Your task to perform on an android device: Show the shopping cart on costco.com. Add "razer blade" to the cart on costco.com Image 0: 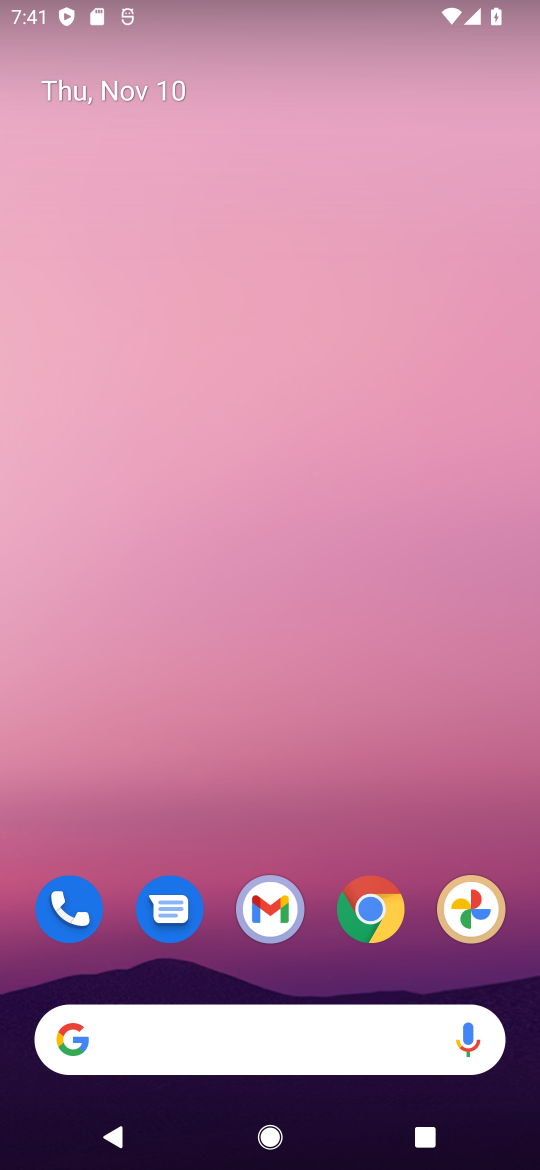
Step 0: drag from (126, 943) to (213, 350)
Your task to perform on an android device: Show the shopping cart on costco.com. Add "razer blade" to the cart on costco.com Image 1: 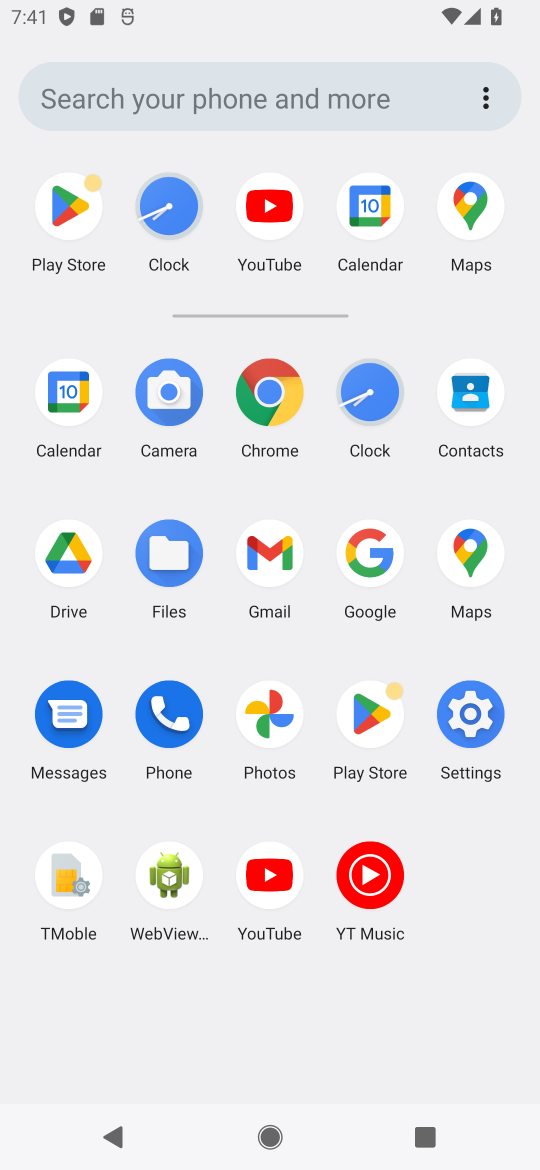
Step 1: click (368, 537)
Your task to perform on an android device: Show the shopping cart on costco.com. Add "razer blade" to the cart on costco.com Image 2: 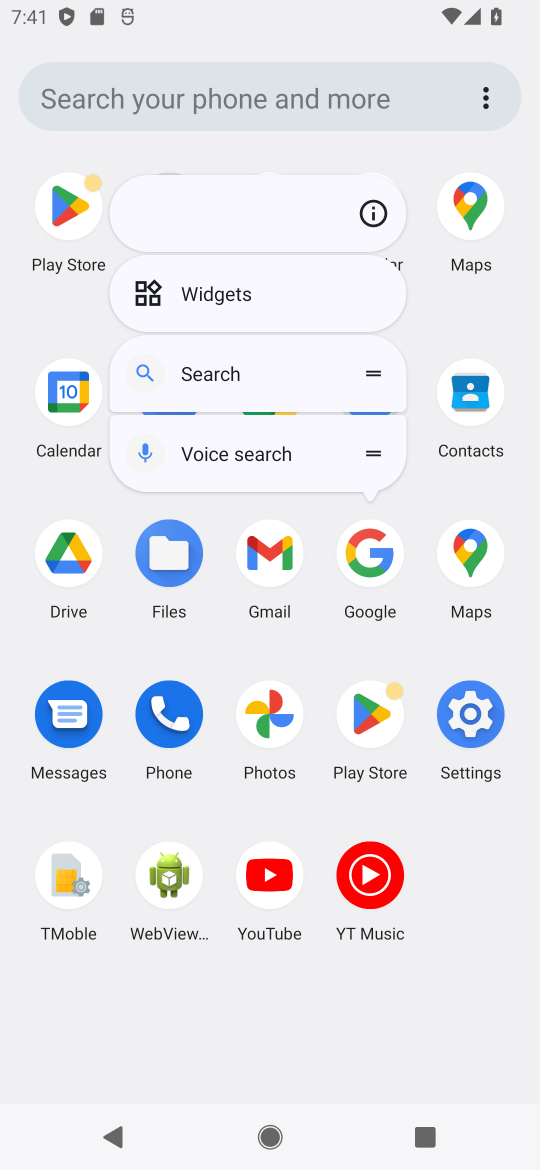
Step 2: click (368, 537)
Your task to perform on an android device: Show the shopping cart on costco.com. Add "razer blade" to the cart on costco.com Image 3: 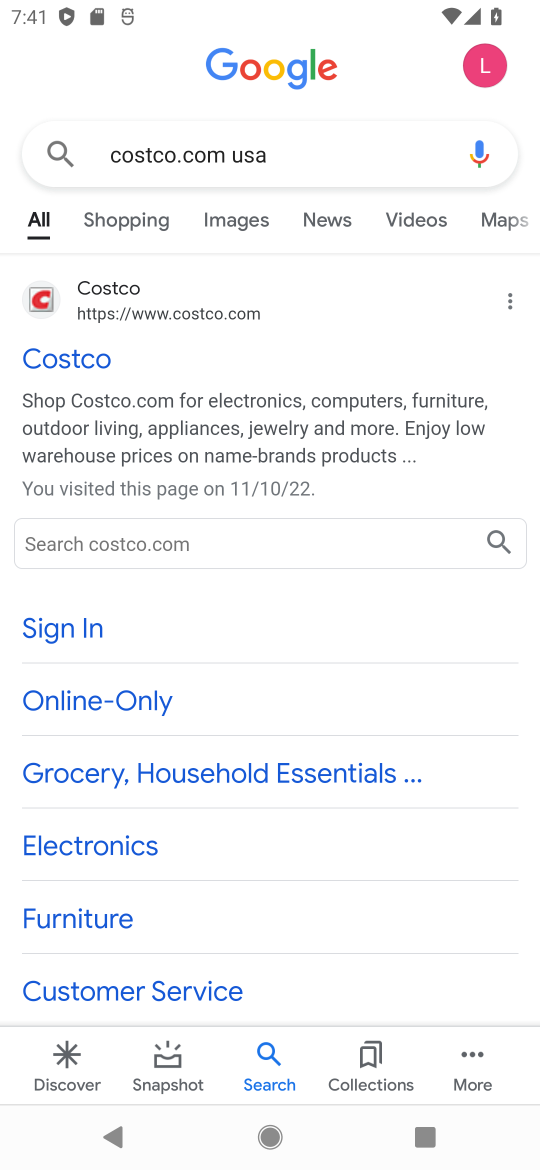
Step 3: click (291, 148)
Your task to perform on an android device: Show the shopping cart on costco.com. Add "razer blade" to the cart on costco.com Image 4: 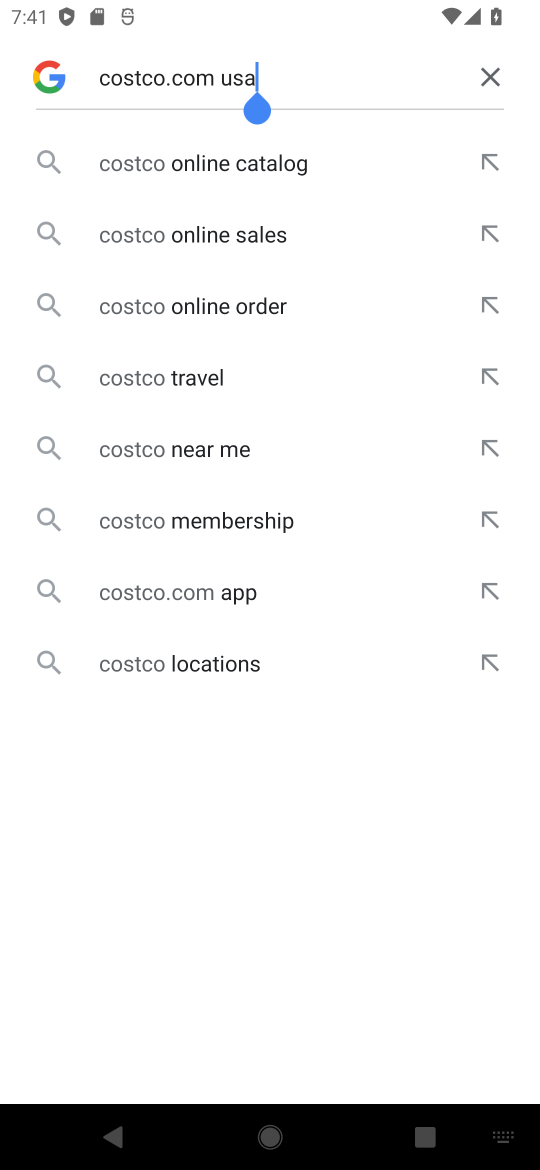
Step 4: click (488, 70)
Your task to perform on an android device: Show the shopping cart on costco.com. Add "razer blade" to the cart on costco.com Image 5: 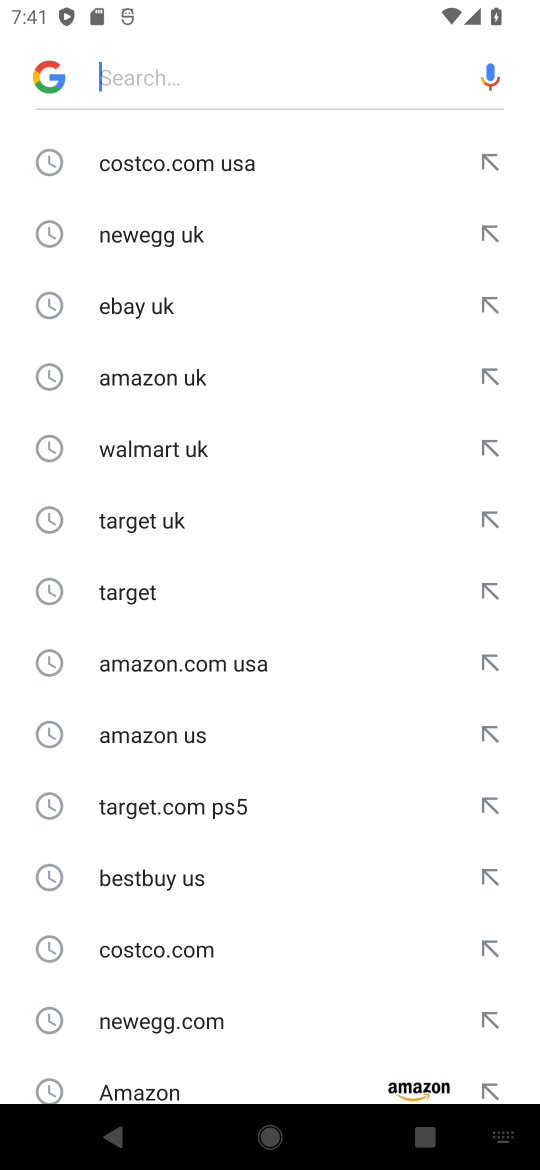
Step 5: click (169, 161)
Your task to perform on an android device: Show the shopping cart on costco.com. Add "razer blade" to the cart on costco.com Image 6: 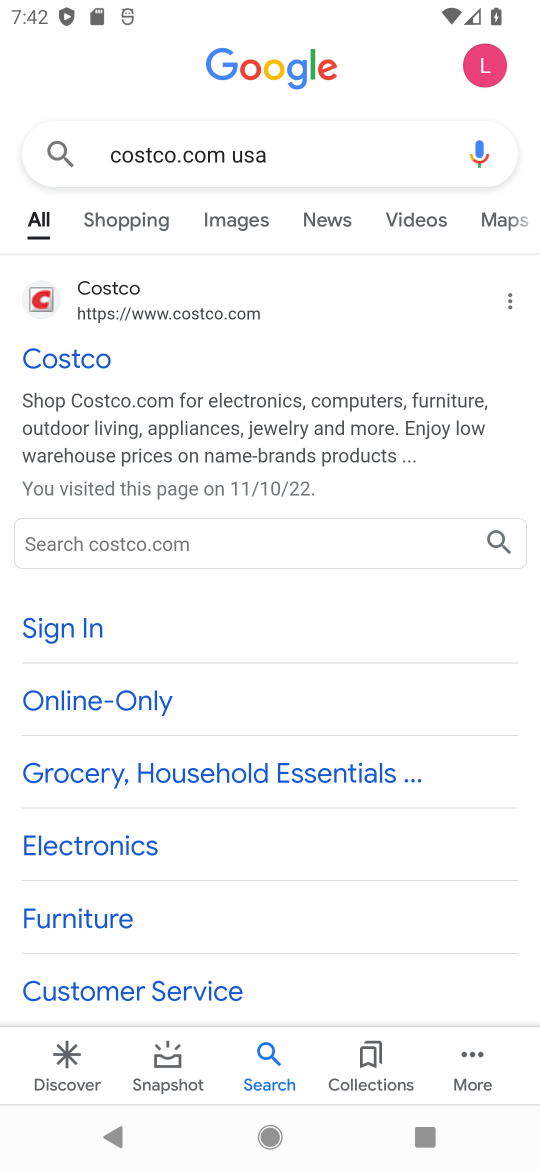
Step 6: click (54, 297)
Your task to perform on an android device: Show the shopping cart on costco.com. Add "razer blade" to the cart on costco.com Image 7: 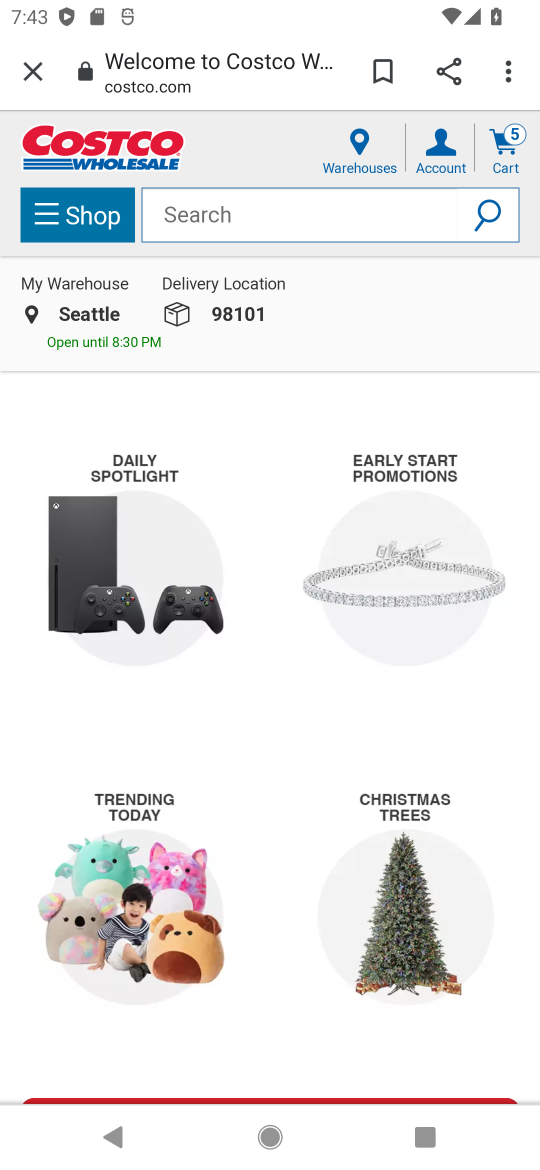
Step 7: click (255, 202)
Your task to perform on an android device: Show the shopping cart on costco.com. Add "razer blade" to the cart on costco.com Image 8: 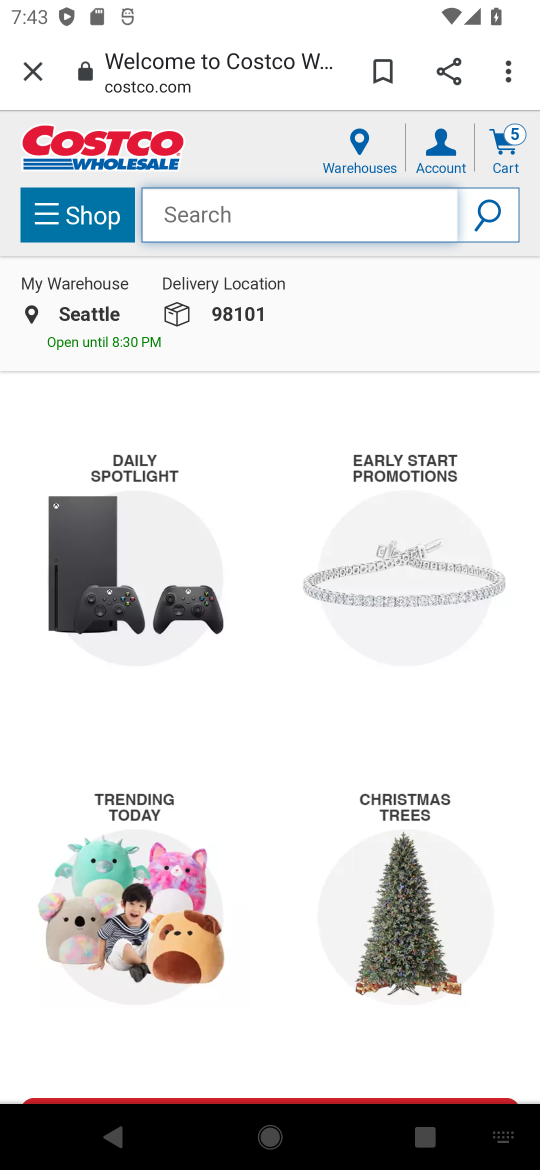
Step 8: type "razer blade "
Your task to perform on an android device: Show the shopping cart on costco.com. Add "razer blade" to the cart on costco.com Image 9: 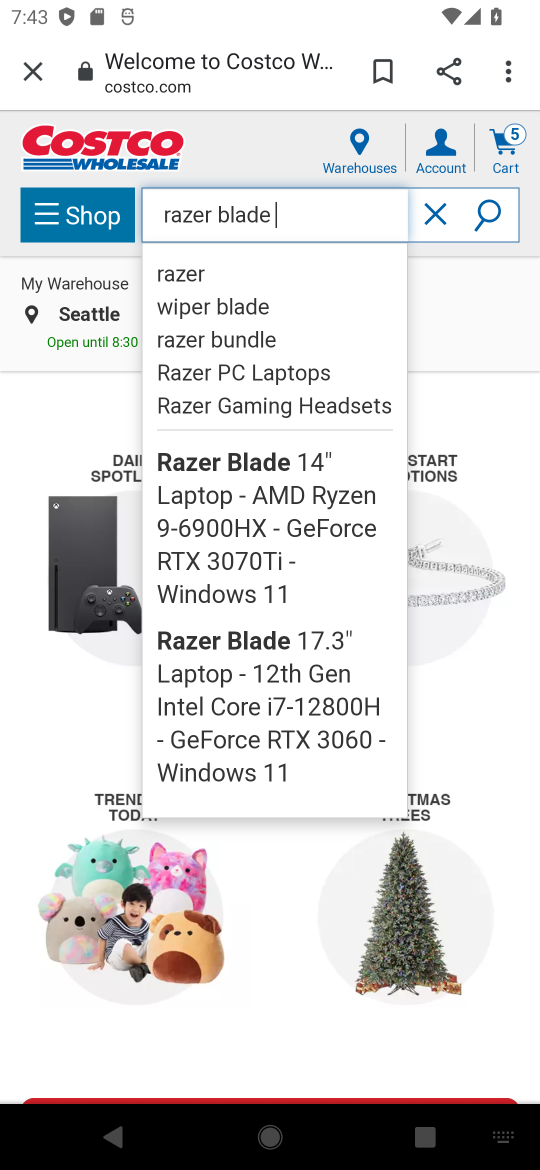
Step 9: click (171, 276)
Your task to perform on an android device: Show the shopping cart on costco.com. Add "razer blade" to the cart on costco.com Image 10: 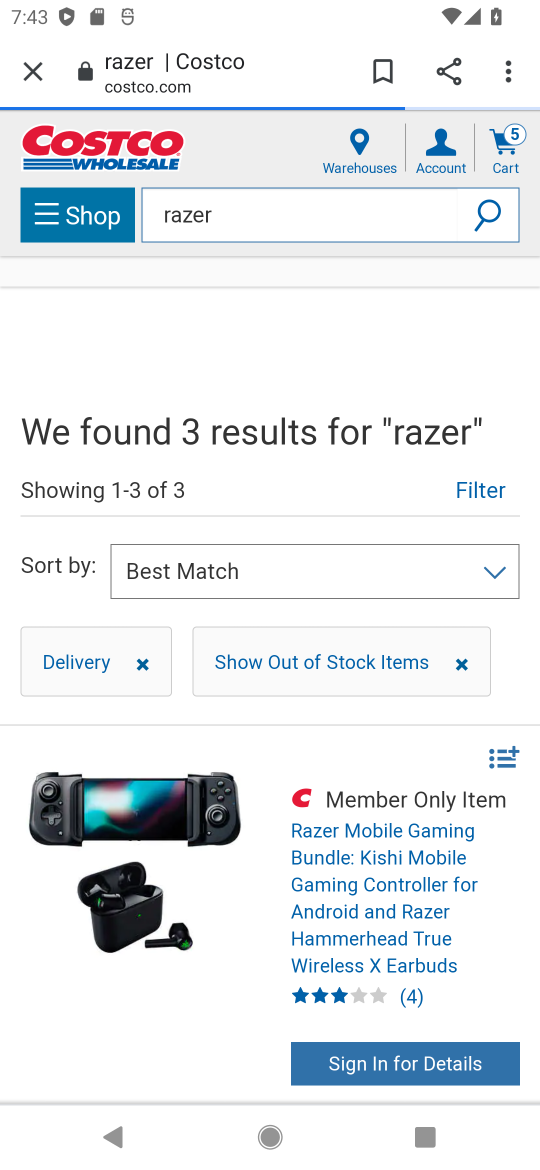
Step 10: drag from (304, 908) to (311, 192)
Your task to perform on an android device: Show the shopping cart on costco.com. Add "razer blade" to the cart on costco.com Image 11: 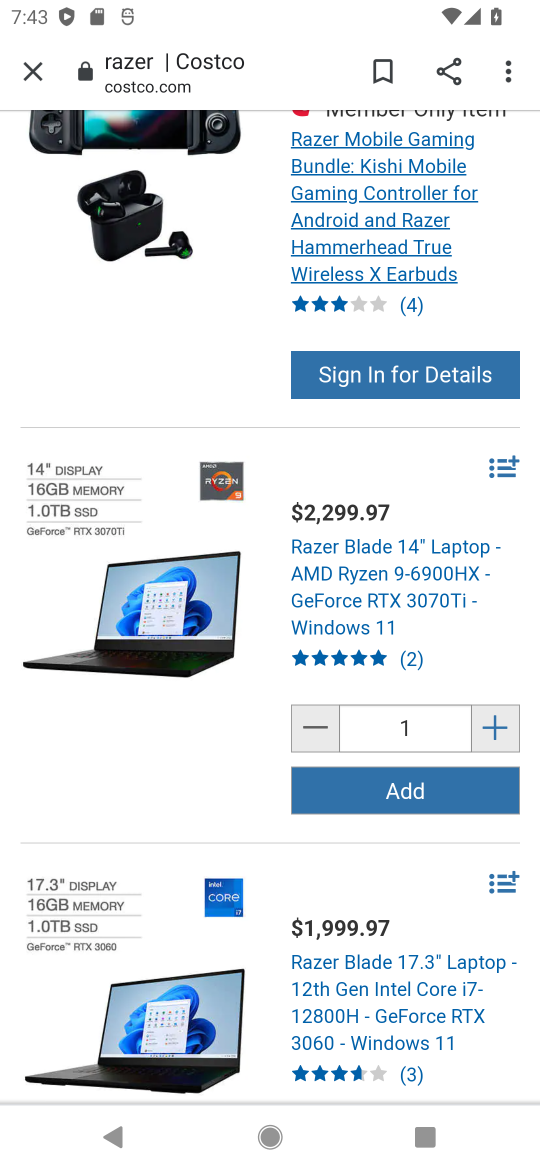
Step 11: click (355, 790)
Your task to perform on an android device: Show the shopping cart on costco.com. Add "razer blade" to the cart on costco.com Image 12: 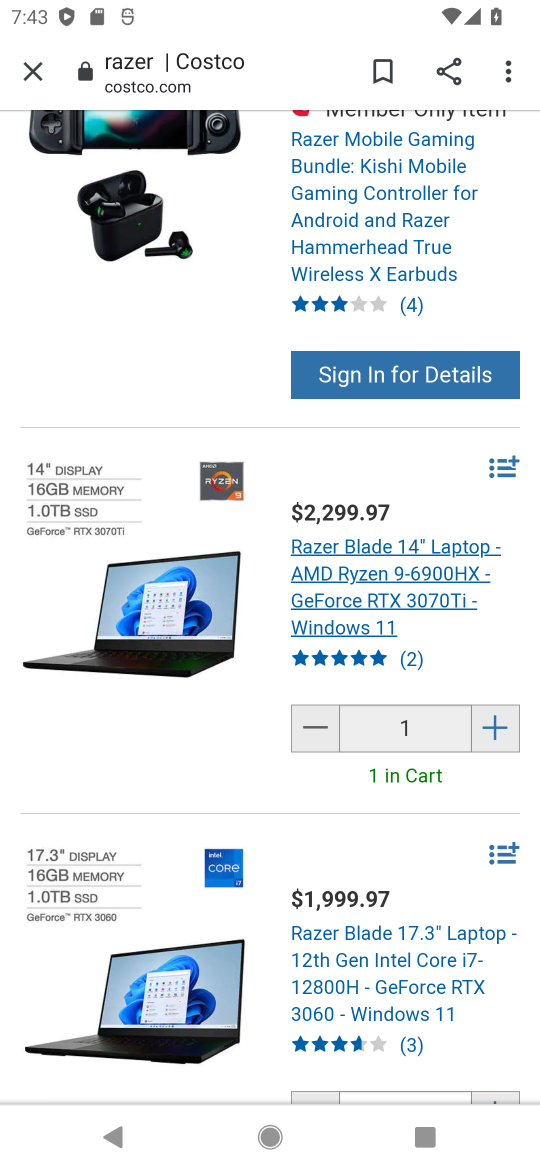
Step 12: task complete